Your task to perform on an android device: Open Yahoo.com Image 0: 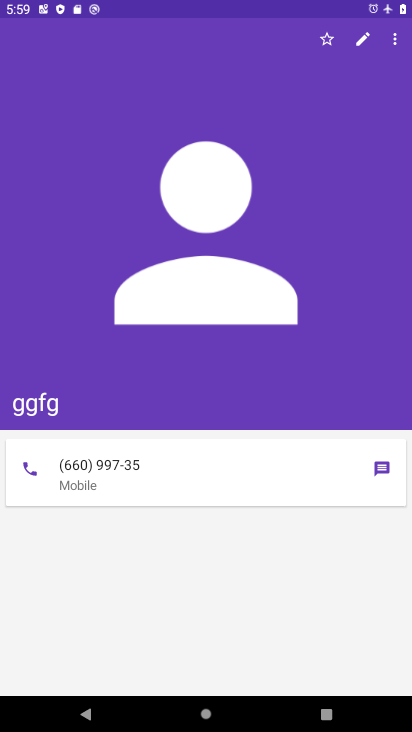
Step 0: press home button
Your task to perform on an android device: Open Yahoo.com Image 1: 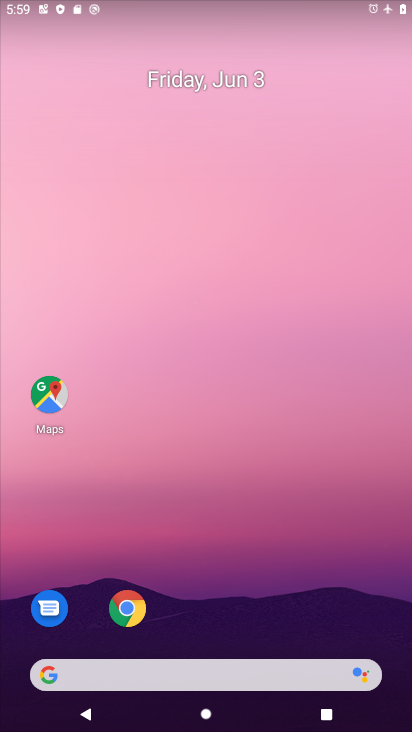
Step 1: click (131, 610)
Your task to perform on an android device: Open Yahoo.com Image 2: 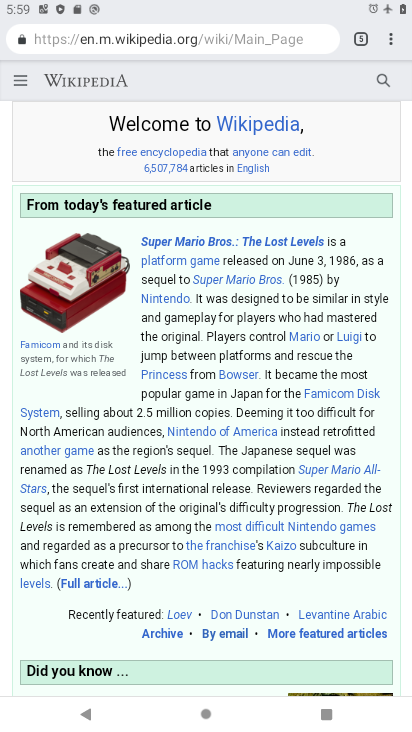
Step 2: click (358, 37)
Your task to perform on an android device: Open Yahoo.com Image 3: 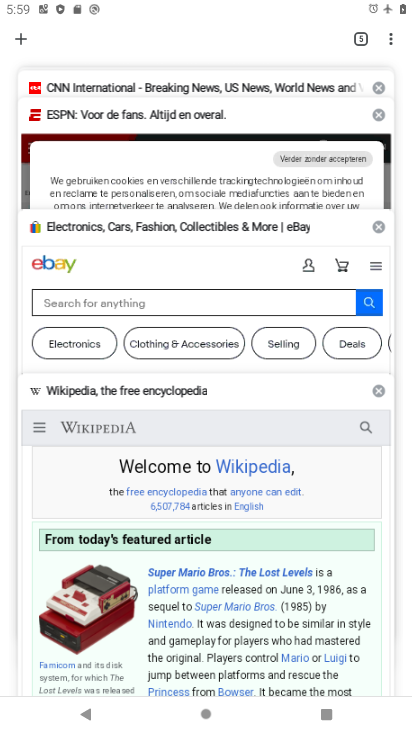
Step 3: drag from (145, 103) to (115, 570)
Your task to perform on an android device: Open Yahoo.com Image 4: 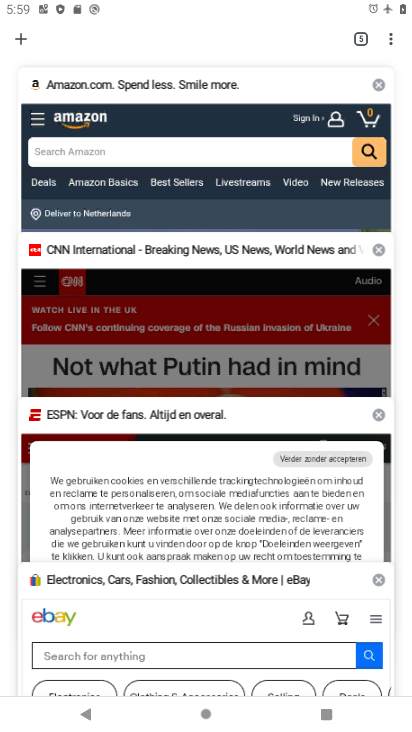
Step 4: click (21, 31)
Your task to perform on an android device: Open Yahoo.com Image 5: 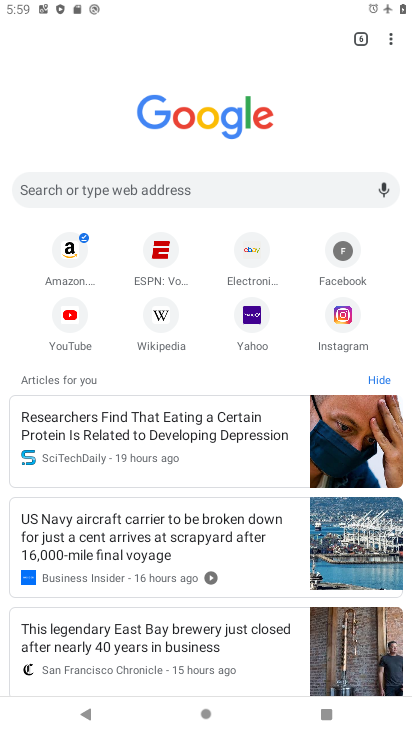
Step 5: click (249, 319)
Your task to perform on an android device: Open Yahoo.com Image 6: 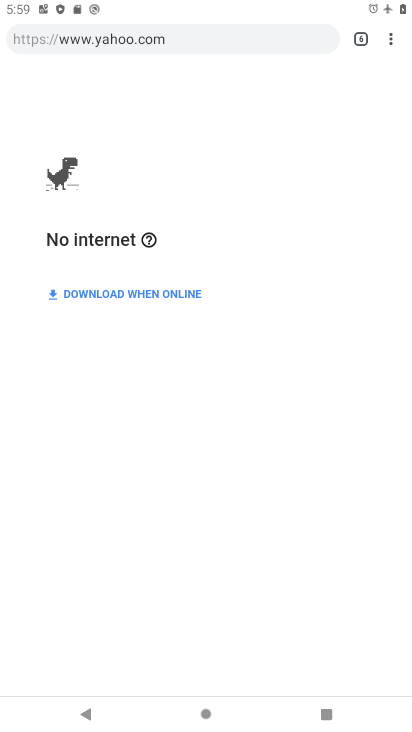
Step 6: drag from (352, 229) to (395, 723)
Your task to perform on an android device: Open Yahoo.com Image 7: 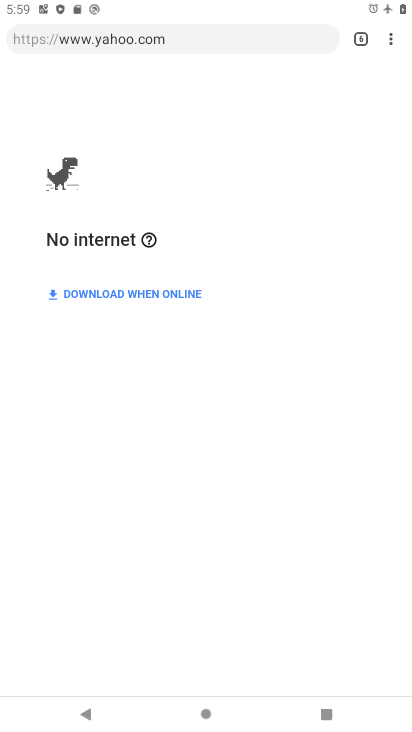
Step 7: drag from (234, 34) to (258, 691)
Your task to perform on an android device: Open Yahoo.com Image 8: 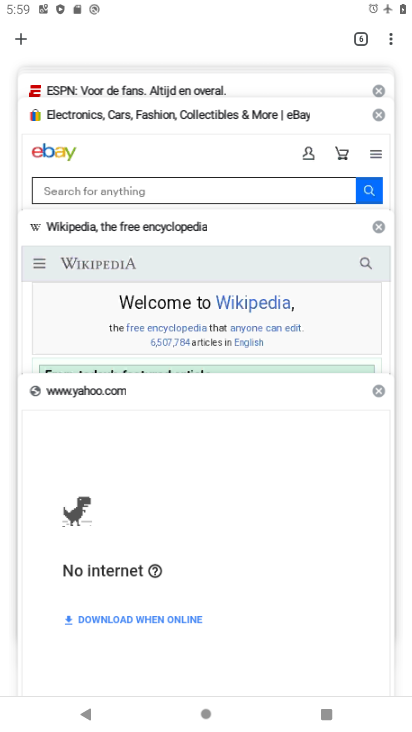
Step 8: click (237, 534)
Your task to perform on an android device: Open Yahoo.com Image 9: 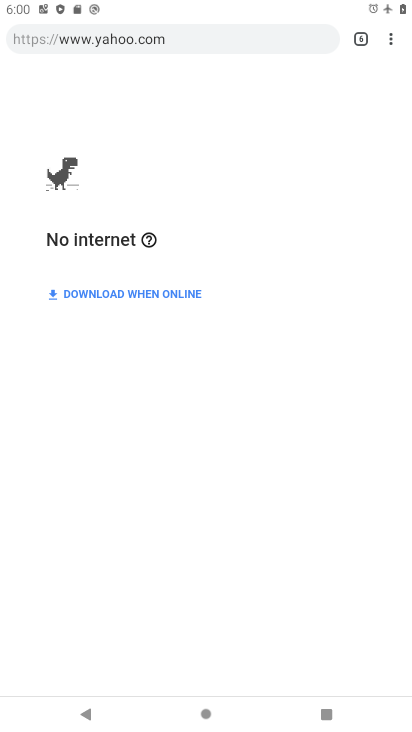
Step 9: drag from (317, 6) to (372, 515)
Your task to perform on an android device: Open Yahoo.com Image 10: 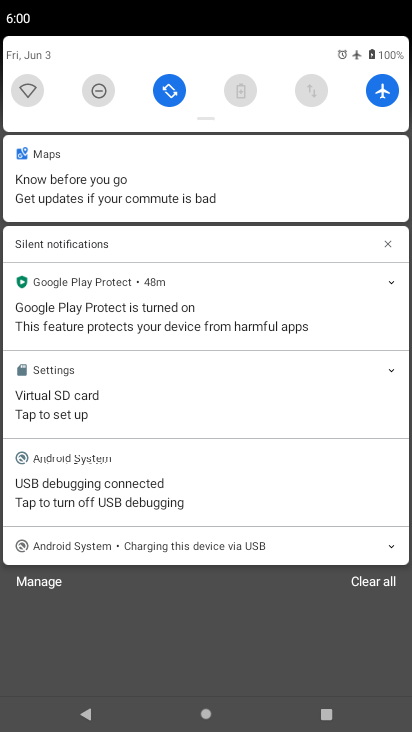
Step 10: click (383, 94)
Your task to perform on an android device: Open Yahoo.com Image 11: 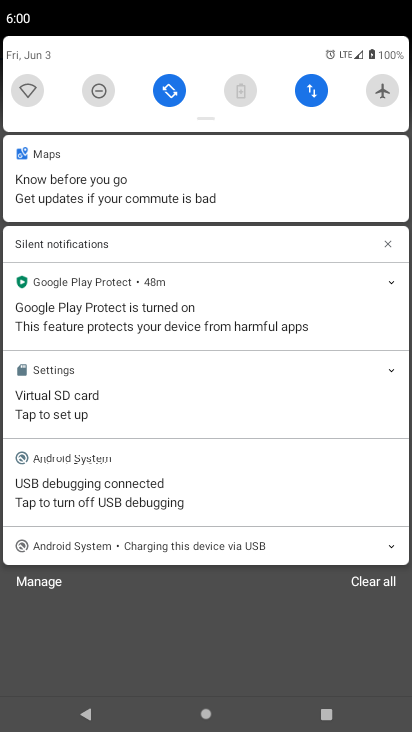
Step 11: task complete